Your task to perform on an android device: change text size in settings app Image 0: 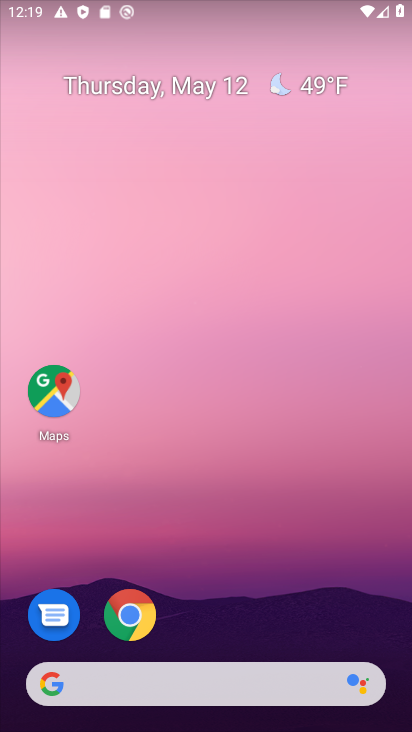
Step 0: drag from (233, 713) to (218, 335)
Your task to perform on an android device: change text size in settings app Image 1: 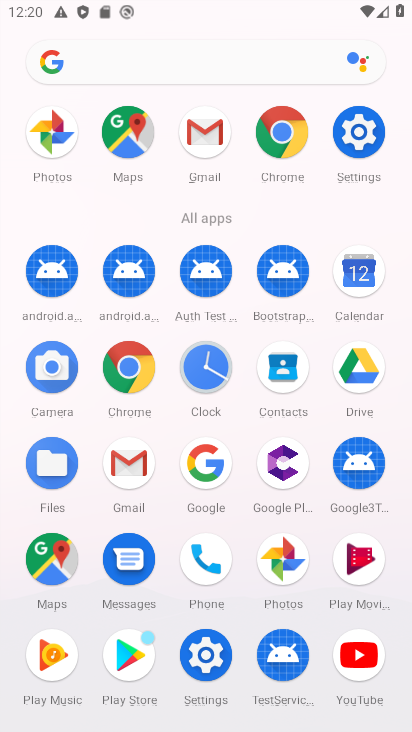
Step 1: click (196, 664)
Your task to perform on an android device: change text size in settings app Image 2: 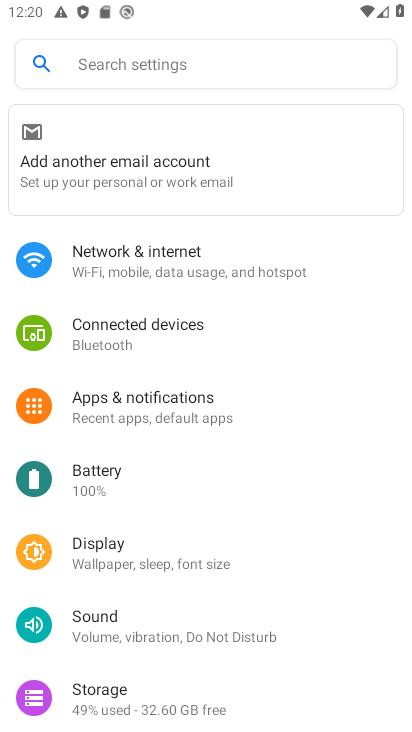
Step 2: click (178, 75)
Your task to perform on an android device: change text size in settings app Image 3: 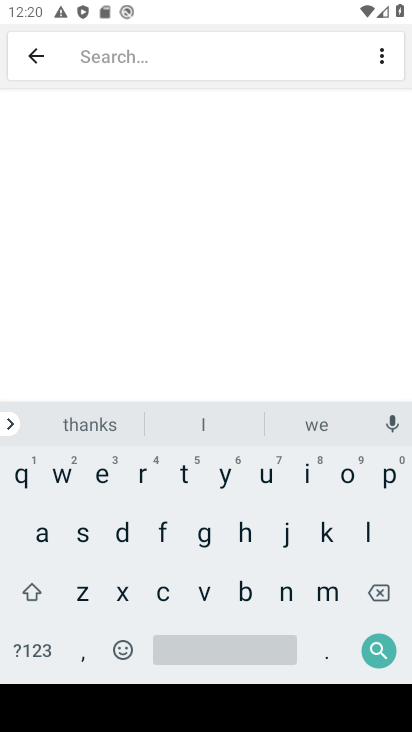
Step 3: click (181, 466)
Your task to perform on an android device: change text size in settings app Image 4: 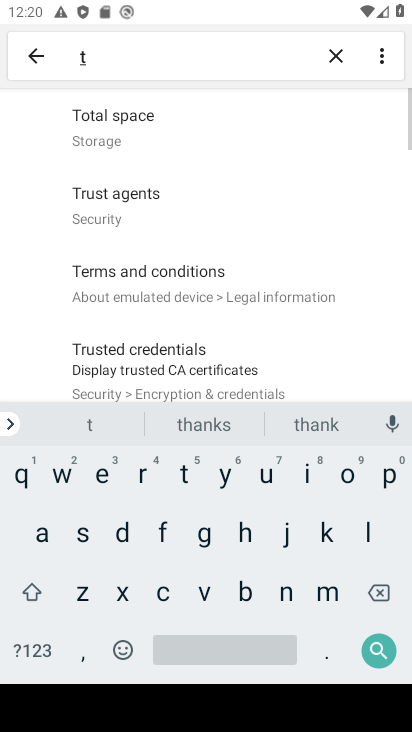
Step 4: click (103, 476)
Your task to perform on an android device: change text size in settings app Image 5: 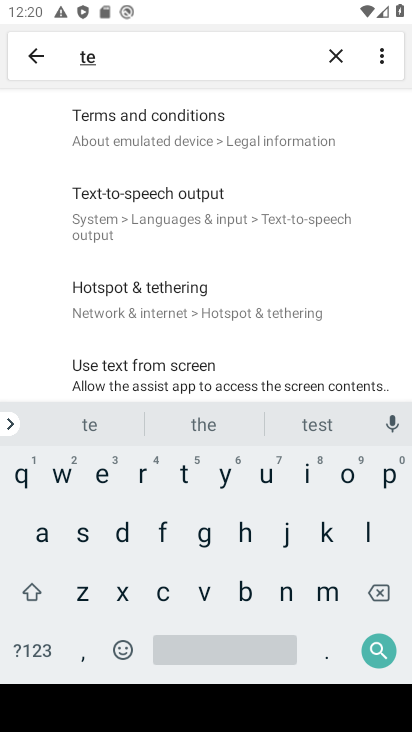
Step 5: click (372, 587)
Your task to perform on an android device: change text size in settings app Image 6: 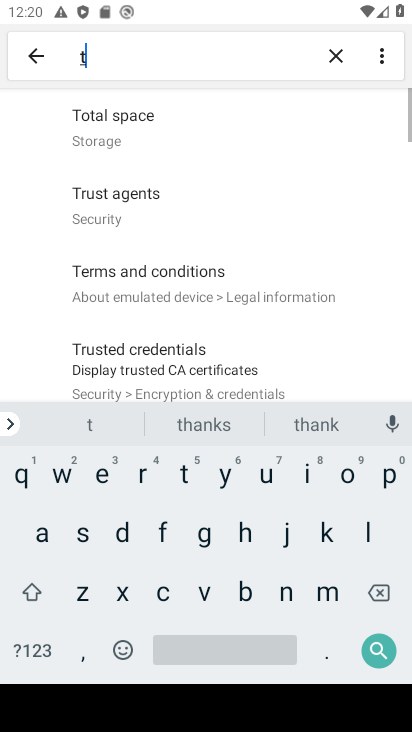
Step 6: click (372, 587)
Your task to perform on an android device: change text size in settings app Image 7: 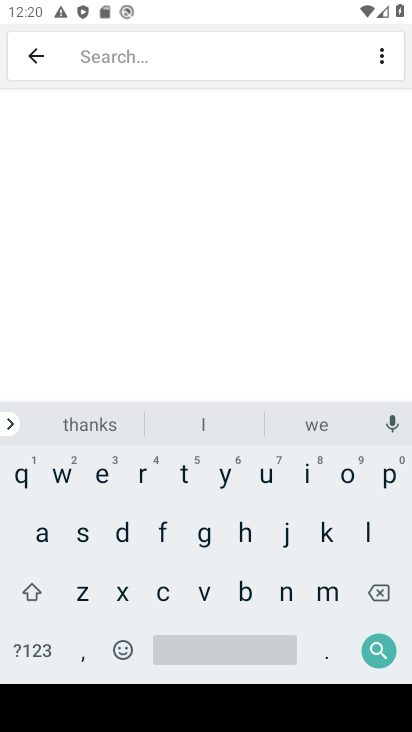
Step 7: click (81, 538)
Your task to perform on an android device: change text size in settings app Image 8: 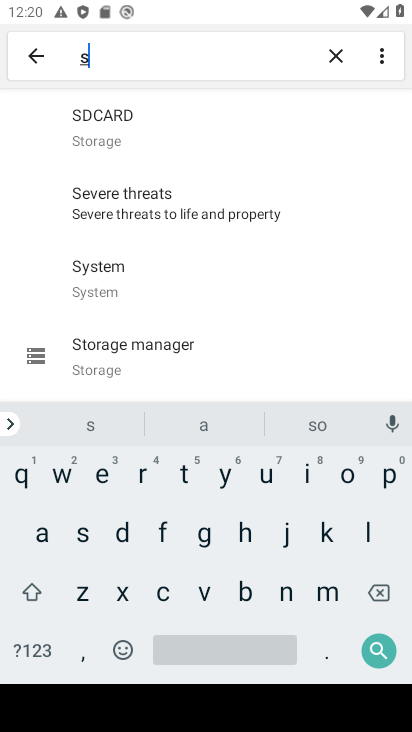
Step 8: click (310, 474)
Your task to perform on an android device: change text size in settings app Image 9: 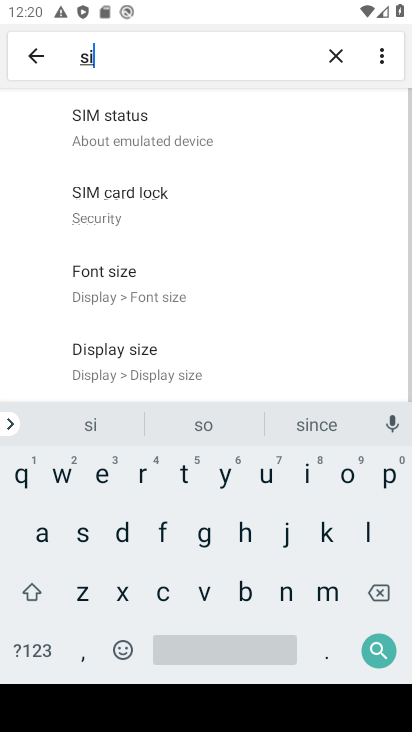
Step 9: click (84, 588)
Your task to perform on an android device: change text size in settings app Image 10: 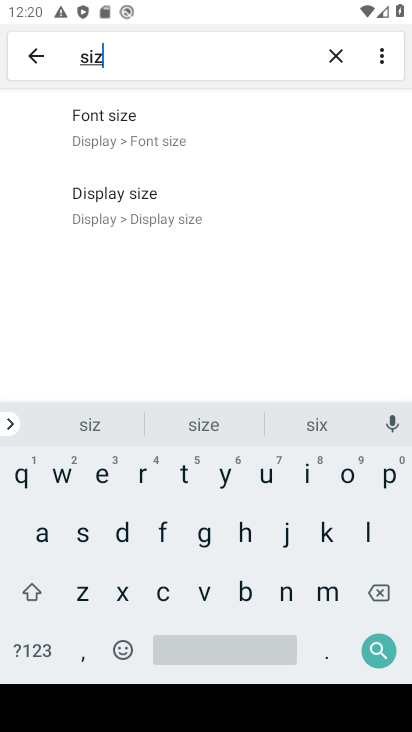
Step 10: click (132, 136)
Your task to perform on an android device: change text size in settings app Image 11: 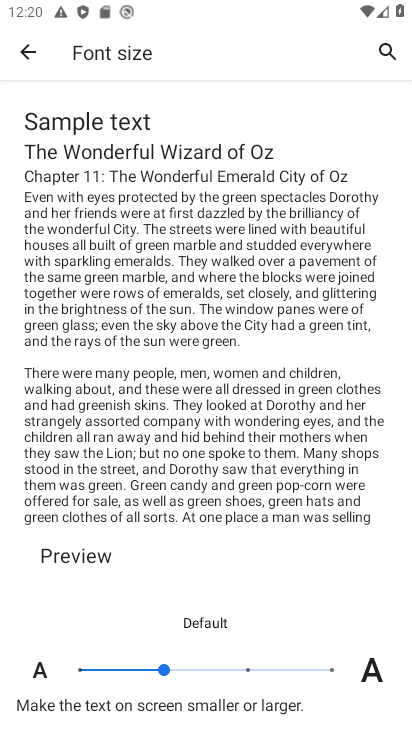
Step 11: click (229, 665)
Your task to perform on an android device: change text size in settings app Image 12: 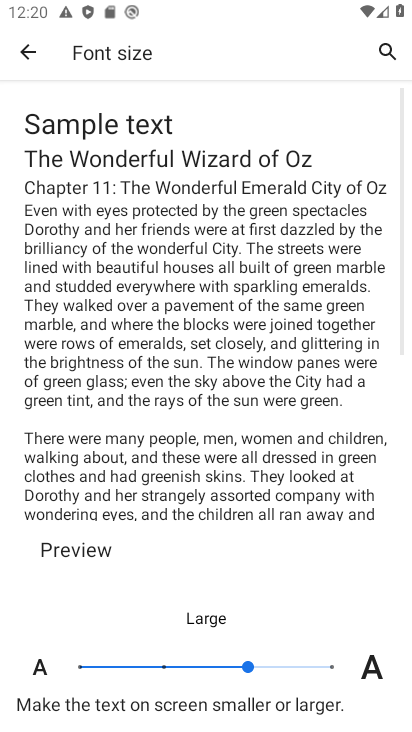
Step 12: task complete